Your task to perform on an android device: What's the weather going to be this weekend? Image 0: 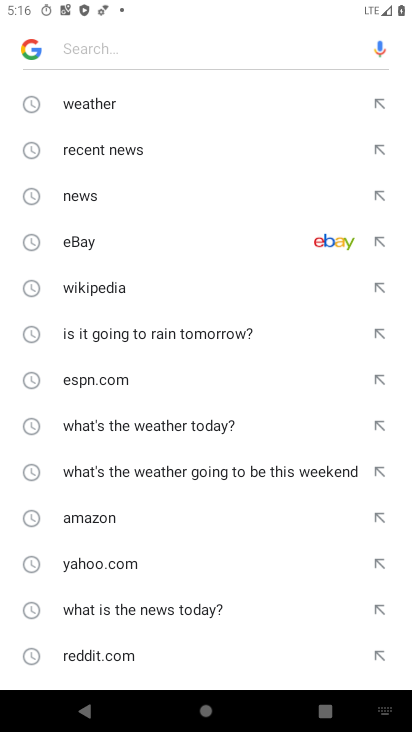
Step 0: press back button
Your task to perform on an android device: What's the weather going to be this weekend? Image 1: 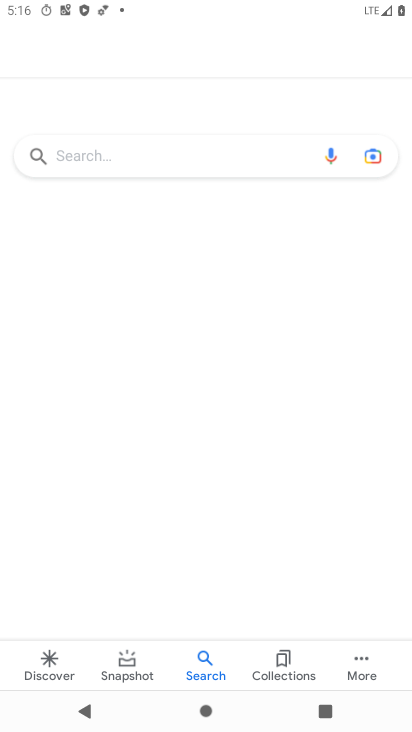
Step 1: press back button
Your task to perform on an android device: What's the weather going to be this weekend? Image 2: 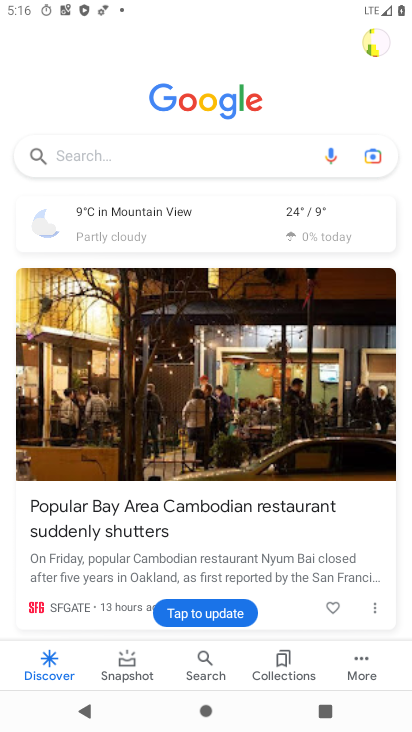
Step 2: click (322, 207)
Your task to perform on an android device: What's the weather going to be this weekend? Image 3: 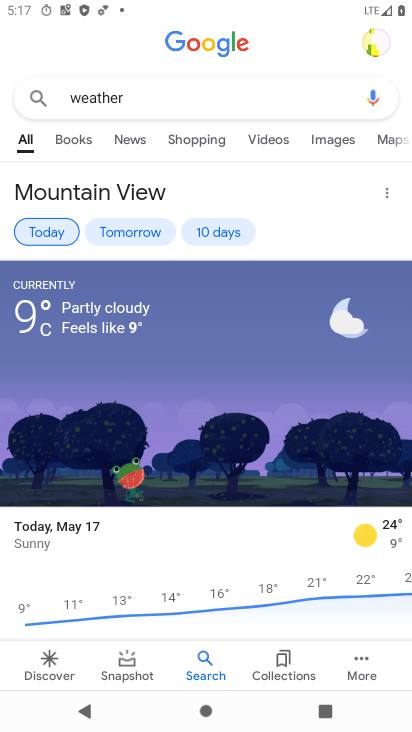
Step 3: click (220, 237)
Your task to perform on an android device: What's the weather going to be this weekend? Image 4: 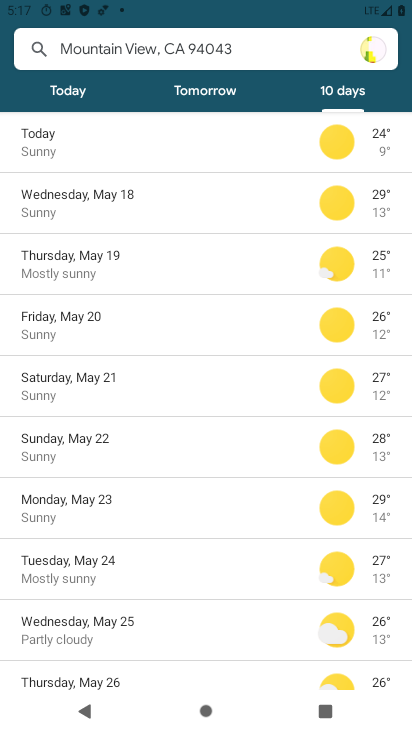
Step 4: task complete